Your task to perform on an android device: Open display settings Image 0: 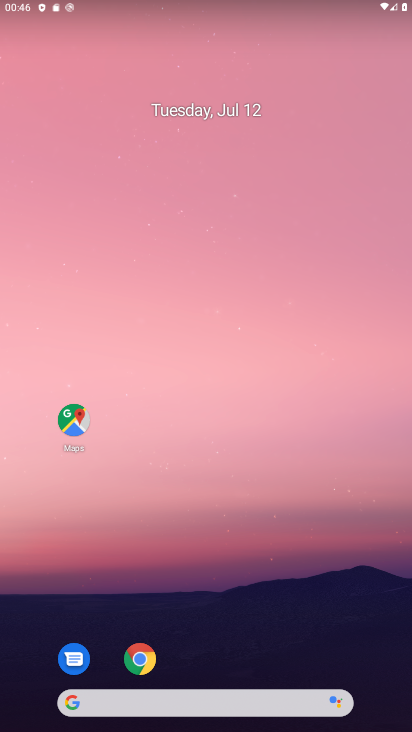
Step 0: drag from (186, 591) to (271, 169)
Your task to perform on an android device: Open display settings Image 1: 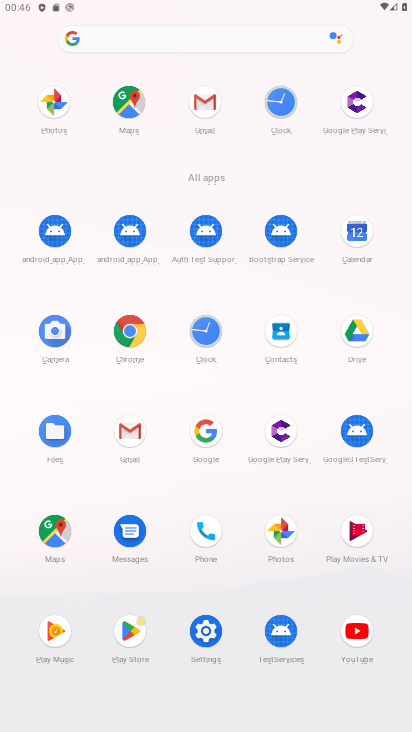
Step 1: click (208, 628)
Your task to perform on an android device: Open display settings Image 2: 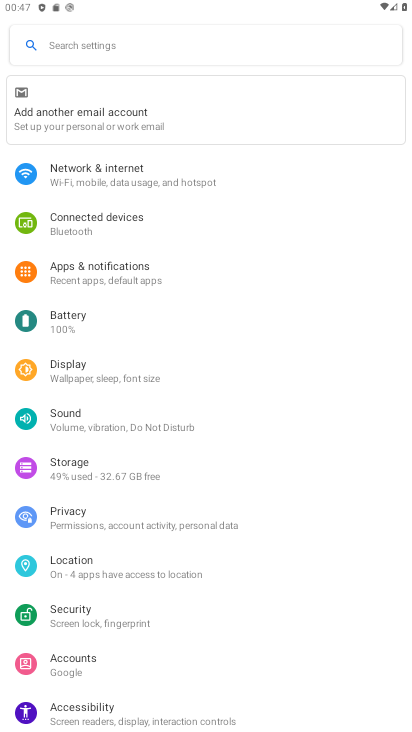
Step 2: click (57, 374)
Your task to perform on an android device: Open display settings Image 3: 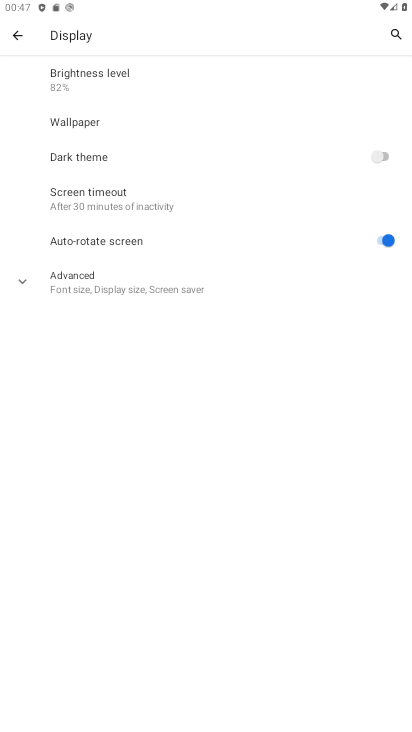
Step 3: task complete